Your task to perform on an android device: Show the shopping cart on ebay.com. Add acer nitro to the cart on ebay.com, then select checkout. Image 0: 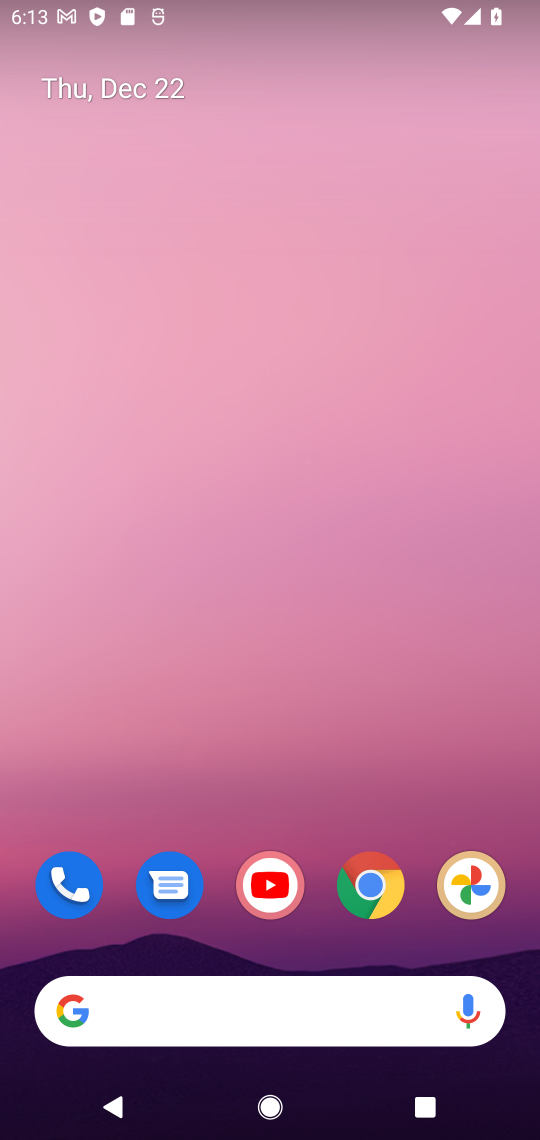
Step 0: click (365, 884)
Your task to perform on an android device: Show the shopping cart on ebay.com. Add acer nitro to the cart on ebay.com, then select checkout. Image 1: 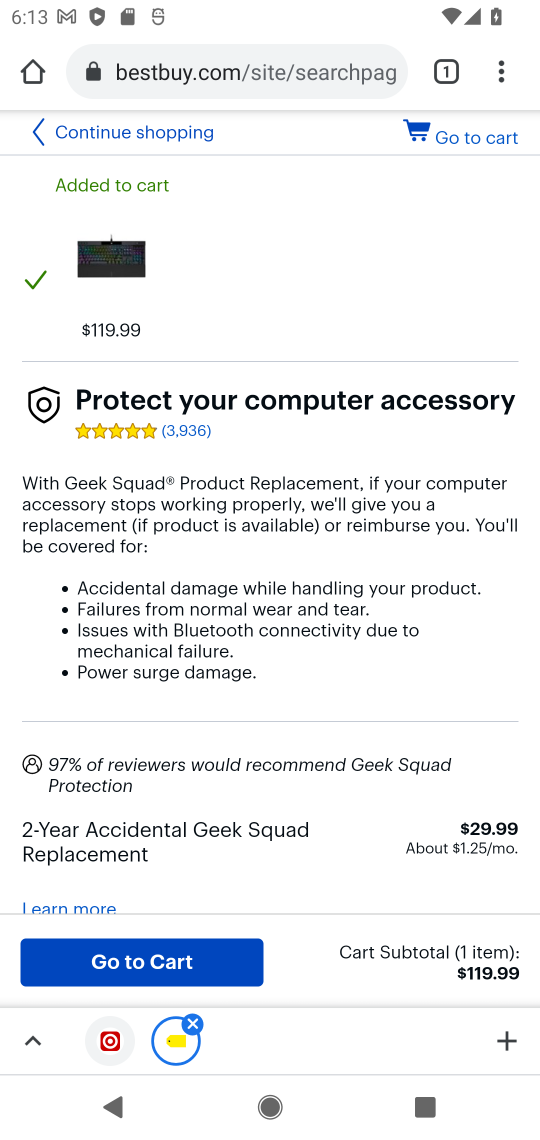
Step 1: click (178, 81)
Your task to perform on an android device: Show the shopping cart on ebay.com. Add acer nitro to the cart on ebay.com, then select checkout. Image 2: 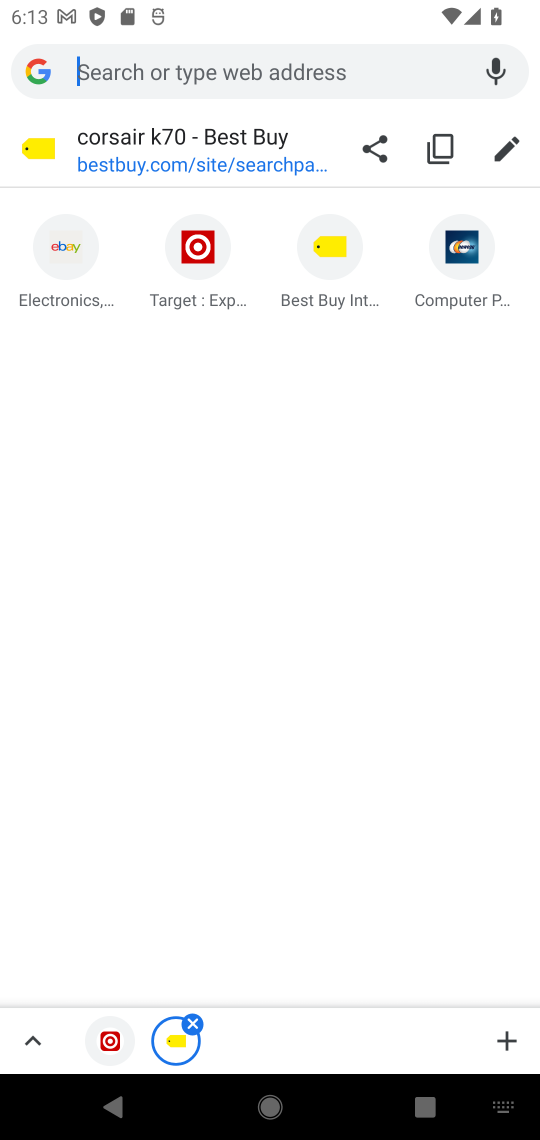
Step 2: click (59, 266)
Your task to perform on an android device: Show the shopping cart on ebay.com. Add acer nitro to the cart on ebay.com, then select checkout. Image 3: 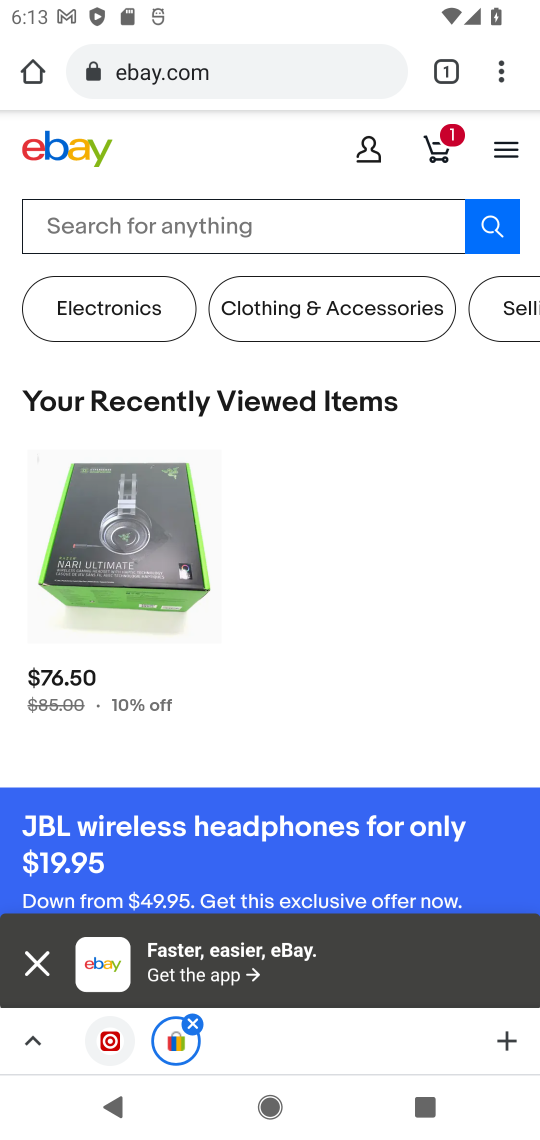
Step 3: click (436, 158)
Your task to perform on an android device: Show the shopping cart on ebay.com. Add acer nitro to the cart on ebay.com, then select checkout. Image 4: 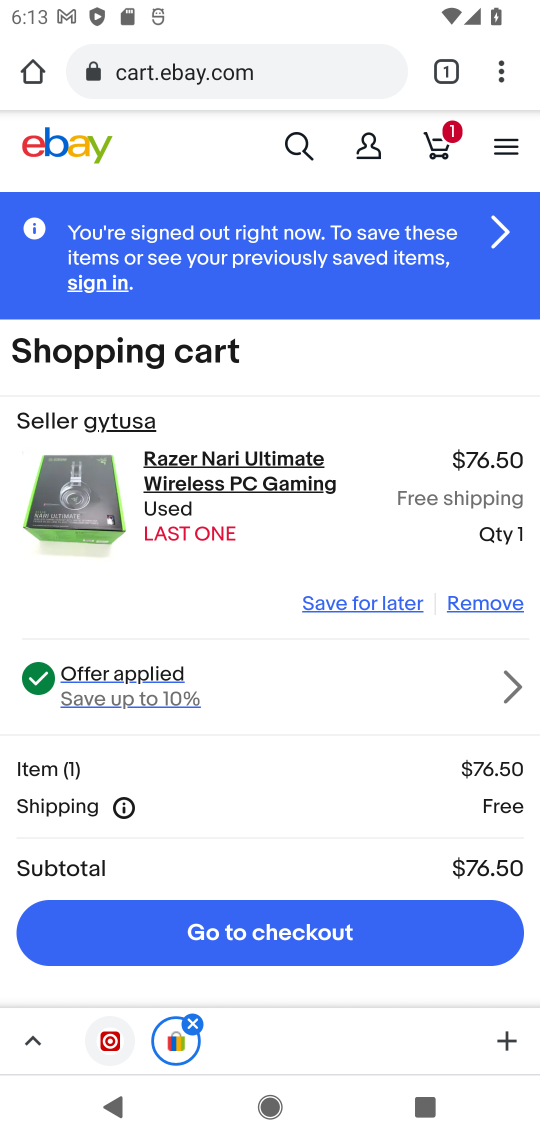
Step 4: click (300, 150)
Your task to perform on an android device: Show the shopping cart on ebay.com. Add acer nitro to the cart on ebay.com, then select checkout. Image 5: 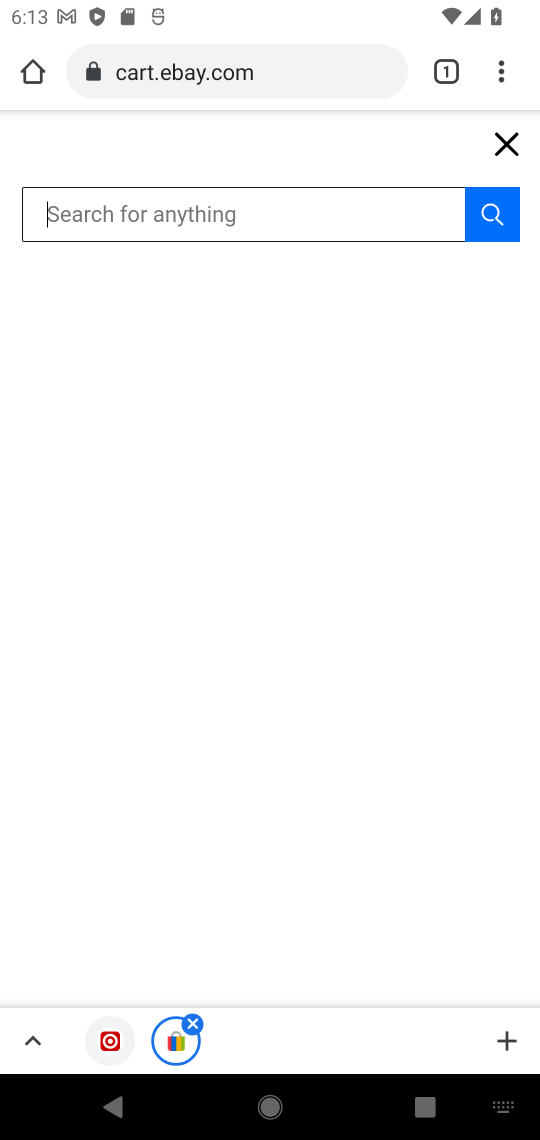
Step 5: type "acer nitro"
Your task to perform on an android device: Show the shopping cart on ebay.com. Add acer nitro to the cart on ebay.com, then select checkout. Image 6: 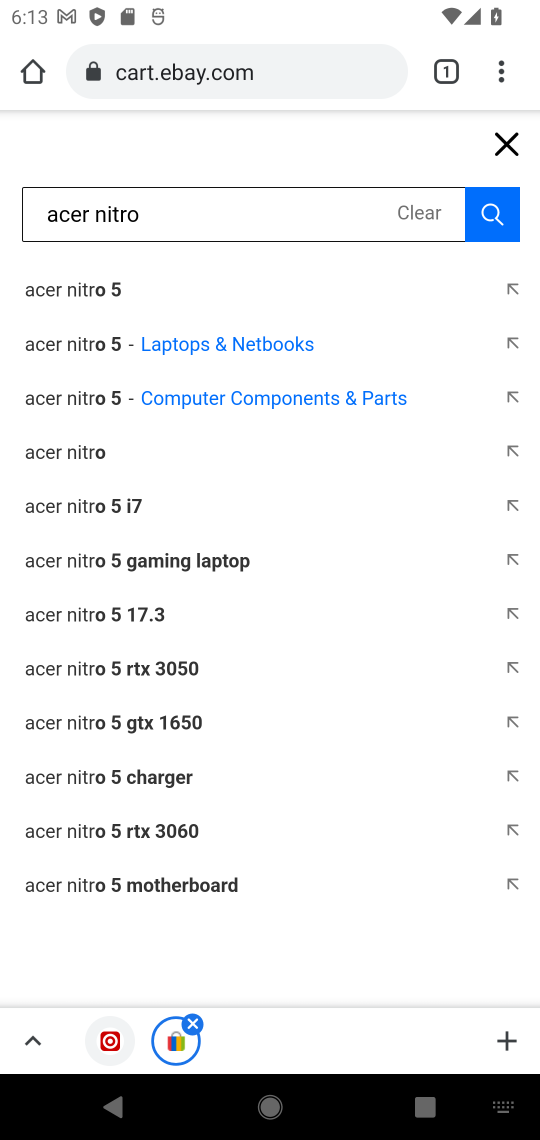
Step 6: click (44, 461)
Your task to perform on an android device: Show the shopping cart on ebay.com. Add acer nitro to the cart on ebay.com, then select checkout. Image 7: 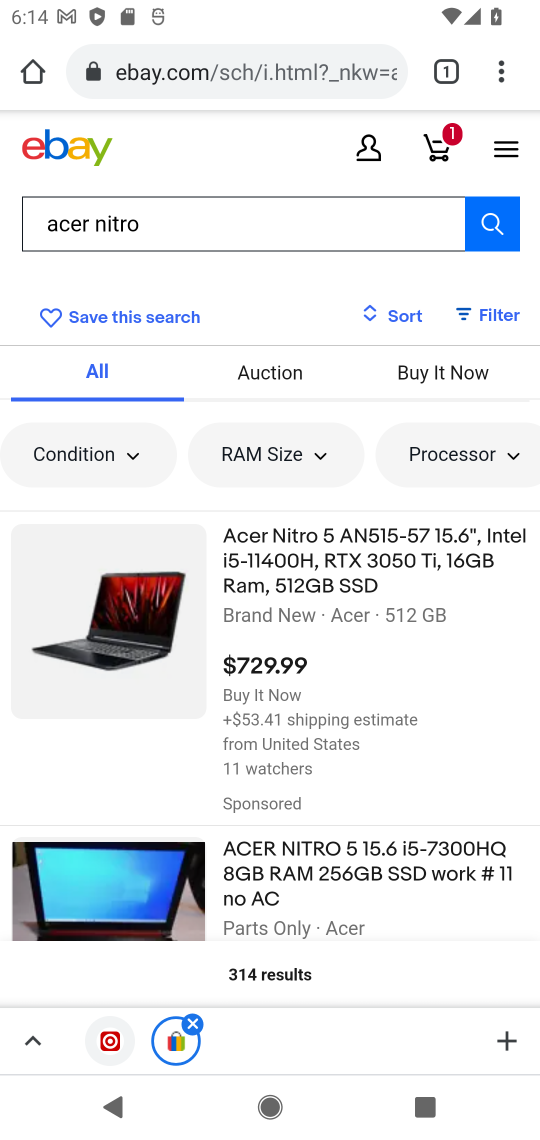
Step 7: click (318, 588)
Your task to perform on an android device: Show the shopping cart on ebay.com. Add acer nitro to the cart on ebay.com, then select checkout. Image 8: 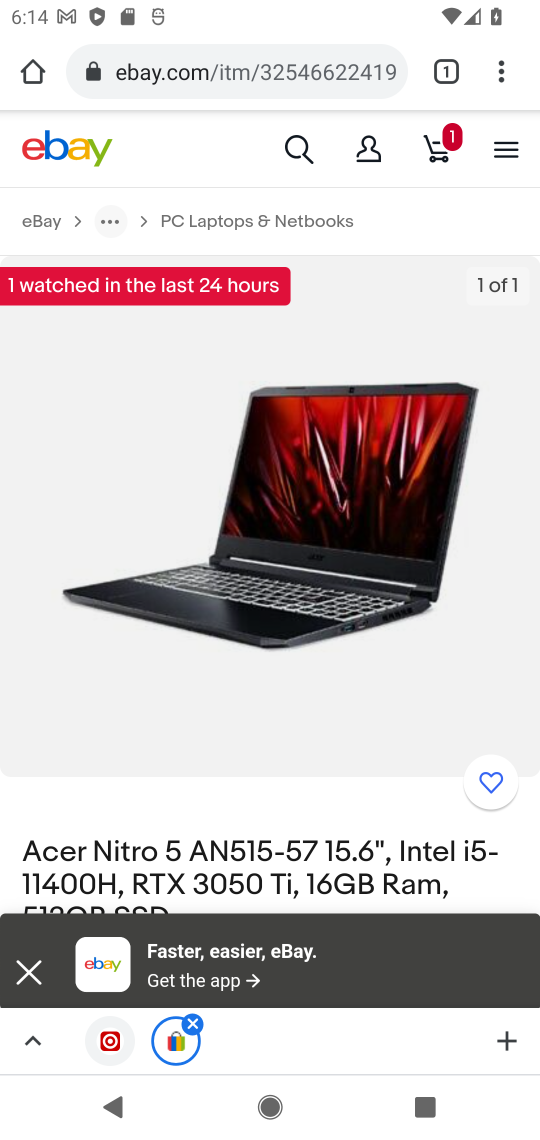
Step 8: drag from (296, 842) to (271, 467)
Your task to perform on an android device: Show the shopping cart on ebay.com. Add acer nitro to the cart on ebay.com, then select checkout. Image 9: 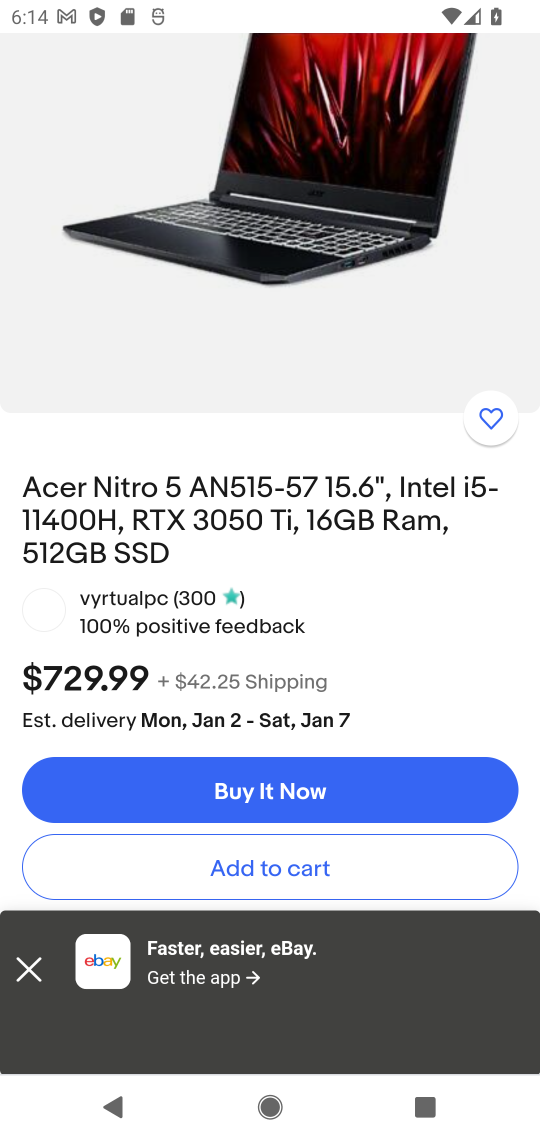
Step 9: click (250, 860)
Your task to perform on an android device: Show the shopping cart on ebay.com. Add acer nitro to the cart on ebay.com, then select checkout. Image 10: 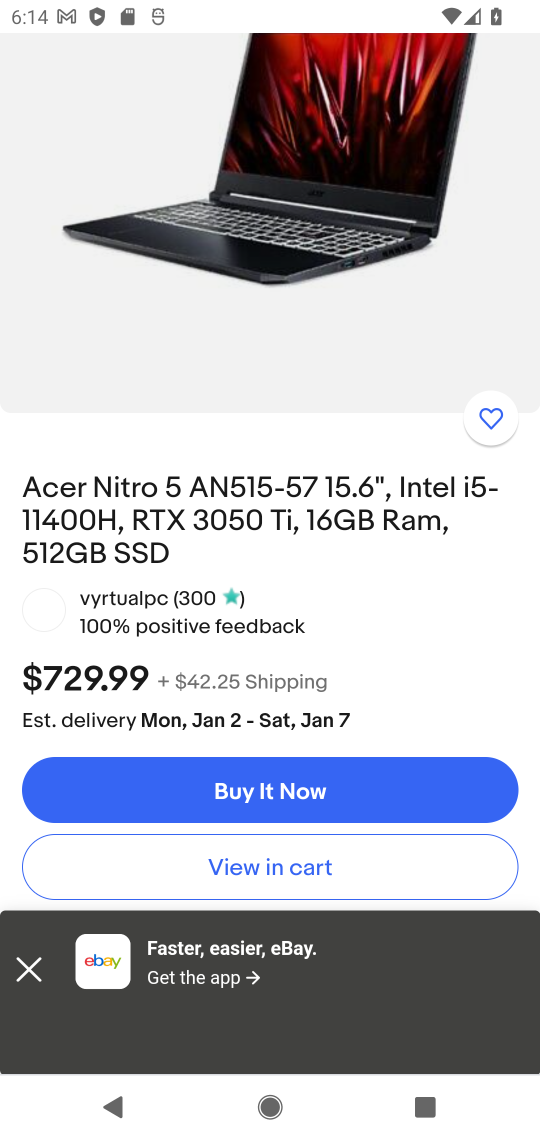
Step 10: click (250, 860)
Your task to perform on an android device: Show the shopping cart on ebay.com. Add acer nitro to the cart on ebay.com, then select checkout. Image 11: 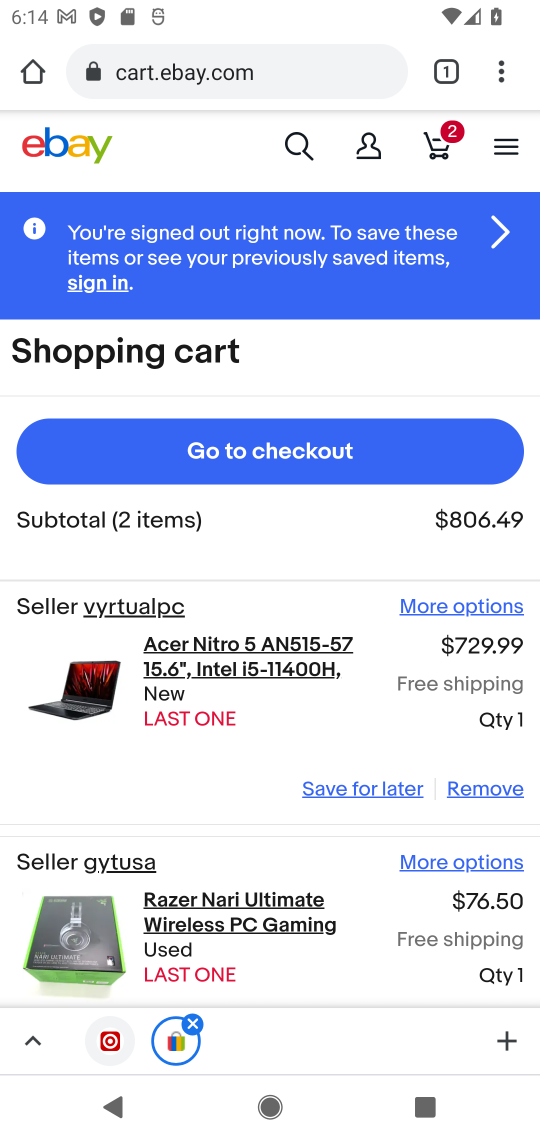
Step 11: click (321, 434)
Your task to perform on an android device: Show the shopping cart on ebay.com. Add acer nitro to the cart on ebay.com, then select checkout. Image 12: 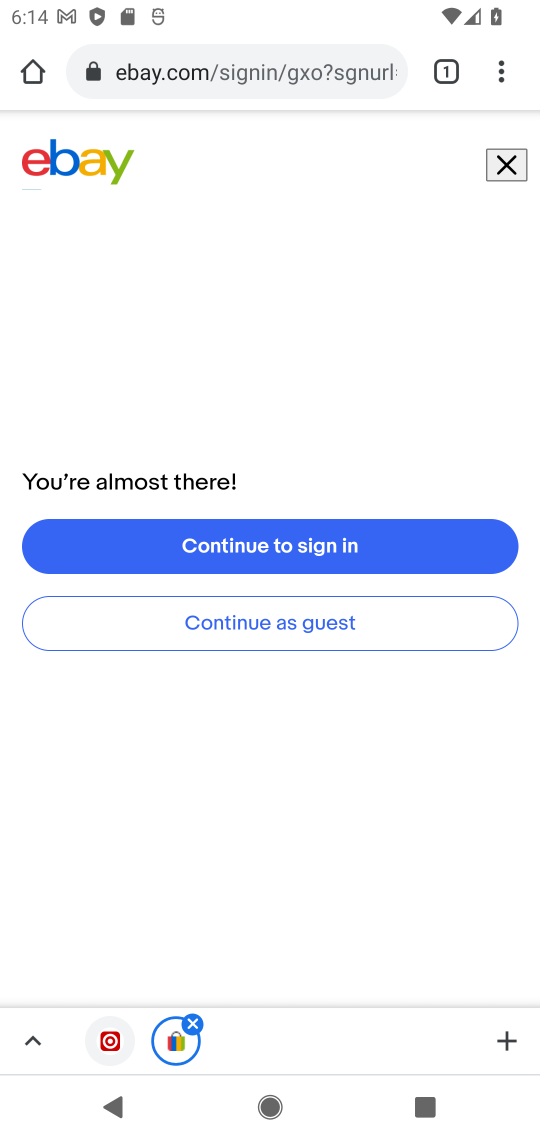
Step 12: task complete